Your task to perform on an android device: Show me recent news Image 0: 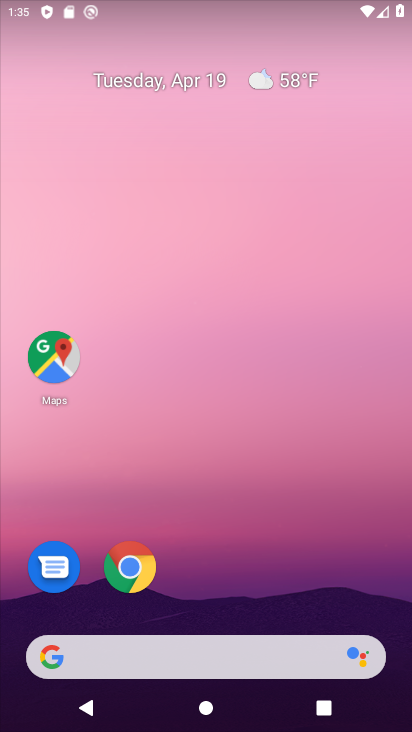
Step 0: drag from (72, 430) to (408, 432)
Your task to perform on an android device: Show me recent news Image 1: 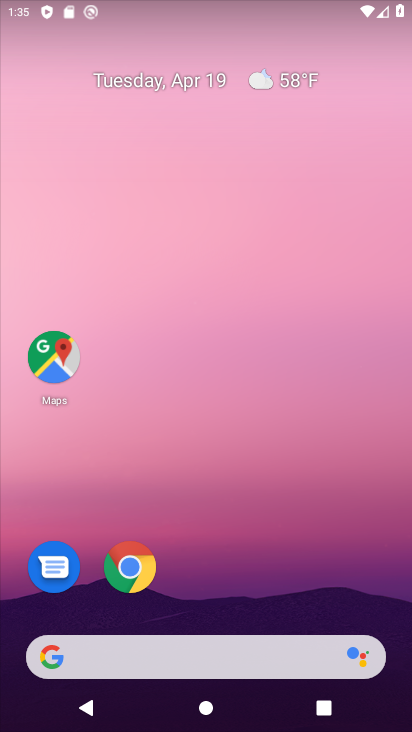
Step 1: task complete